Your task to perform on an android device: Open privacy settings Image 0: 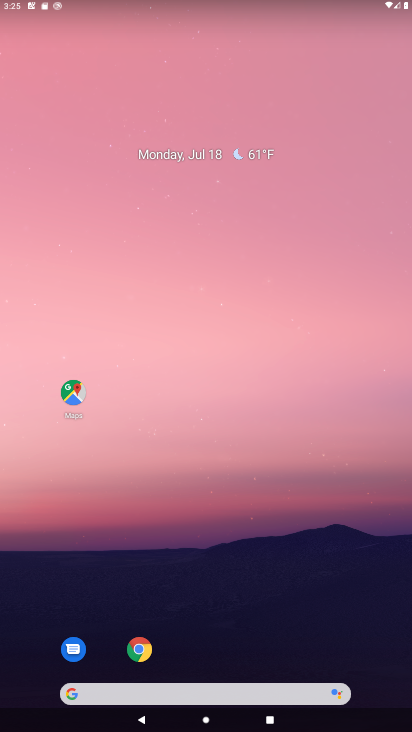
Step 0: drag from (218, 639) to (210, 92)
Your task to perform on an android device: Open privacy settings Image 1: 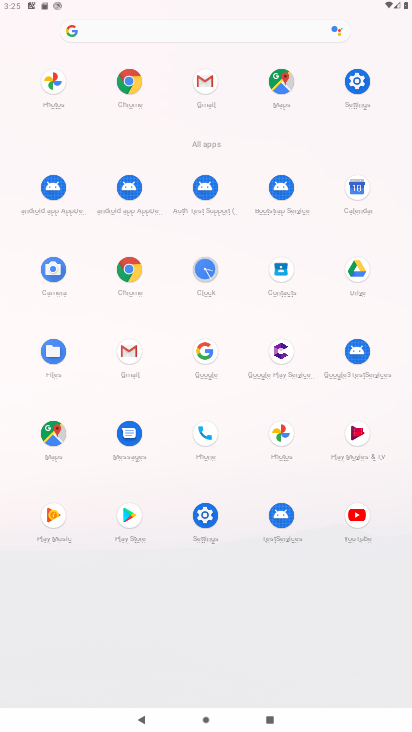
Step 1: click (352, 81)
Your task to perform on an android device: Open privacy settings Image 2: 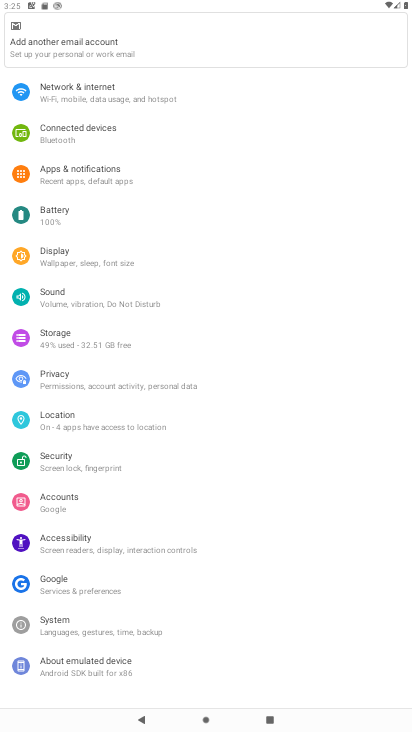
Step 2: click (91, 375)
Your task to perform on an android device: Open privacy settings Image 3: 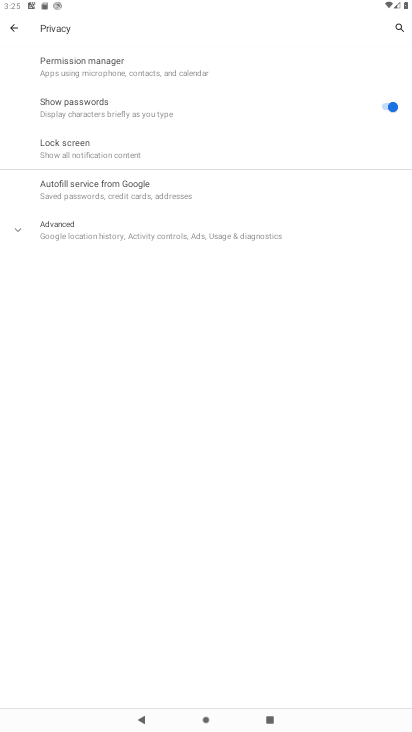
Step 3: task complete